Your task to perform on an android device: Open Google Image 0: 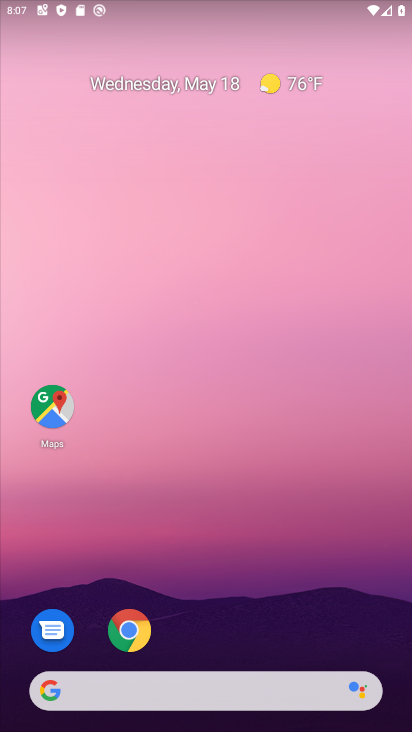
Step 0: drag from (80, 655) to (139, 164)
Your task to perform on an android device: Open Google Image 1: 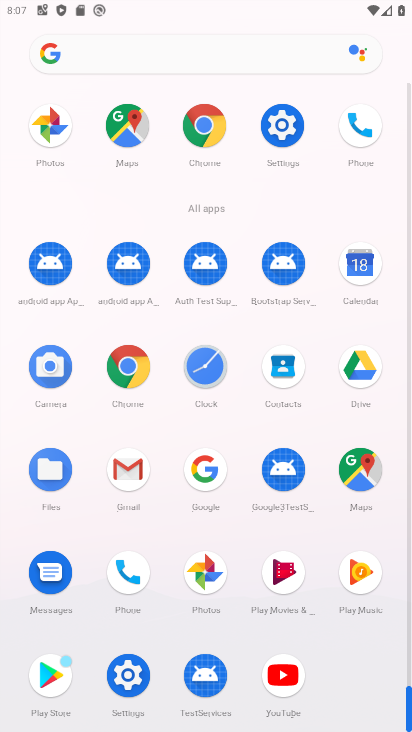
Step 1: click (204, 479)
Your task to perform on an android device: Open Google Image 2: 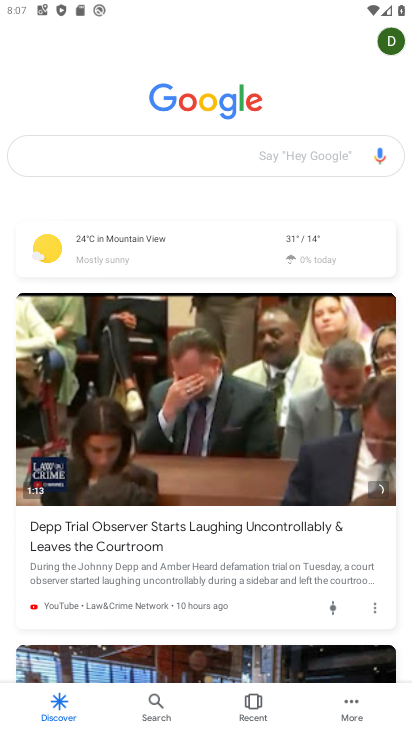
Step 2: task complete